Your task to perform on an android device: Open Chrome and go to the settings page Image 0: 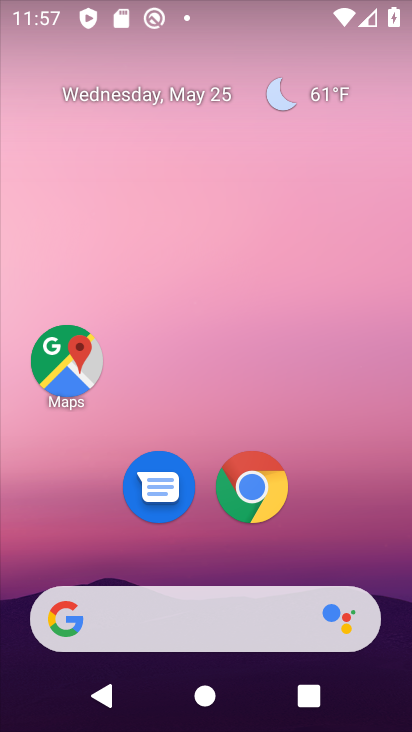
Step 0: click (144, 223)
Your task to perform on an android device: Open Chrome and go to the settings page Image 1: 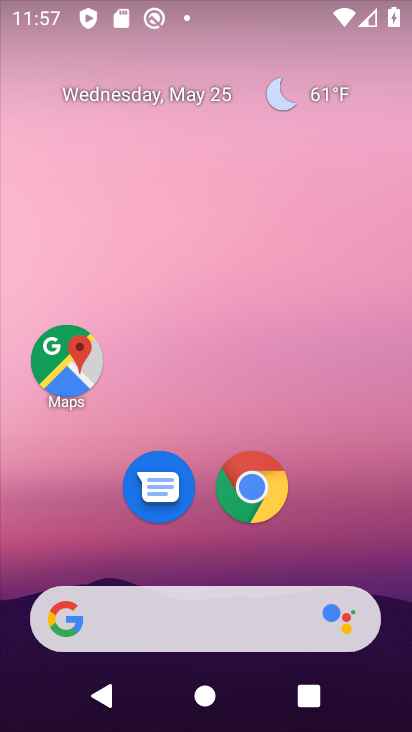
Step 1: drag from (255, 695) to (198, 300)
Your task to perform on an android device: Open Chrome and go to the settings page Image 2: 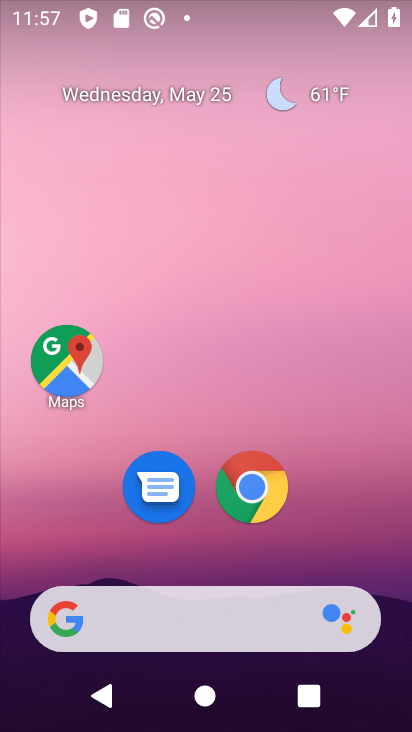
Step 2: drag from (249, 583) to (202, 204)
Your task to perform on an android device: Open Chrome and go to the settings page Image 3: 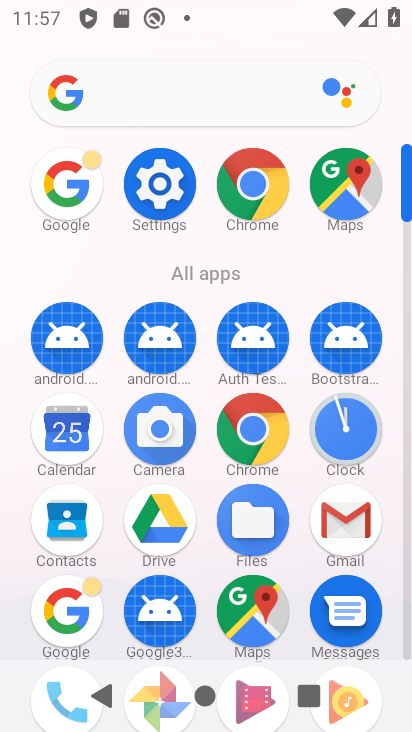
Step 3: click (241, 419)
Your task to perform on an android device: Open Chrome and go to the settings page Image 4: 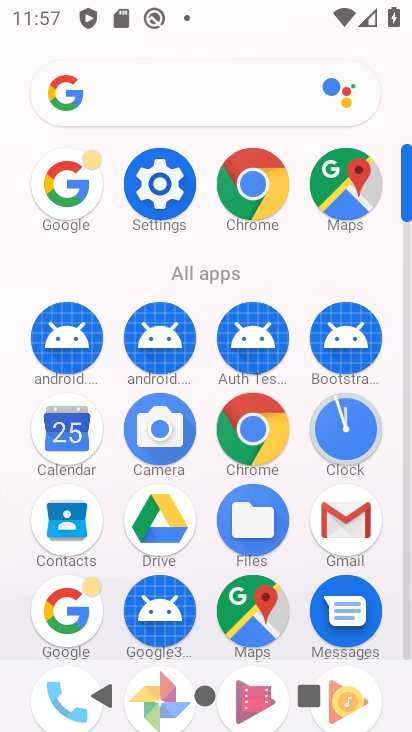
Step 4: click (243, 418)
Your task to perform on an android device: Open Chrome and go to the settings page Image 5: 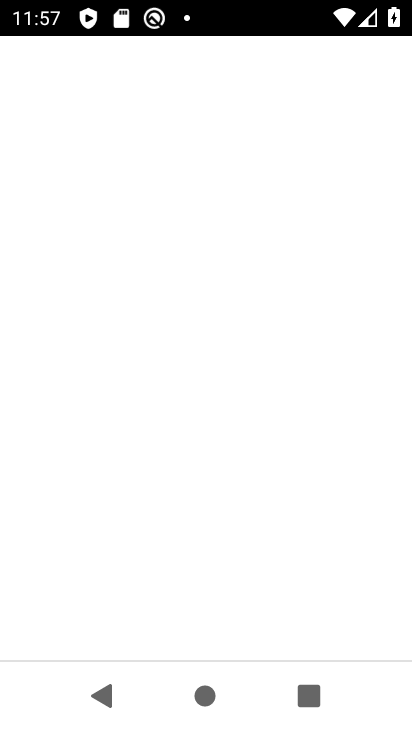
Step 5: click (242, 418)
Your task to perform on an android device: Open Chrome and go to the settings page Image 6: 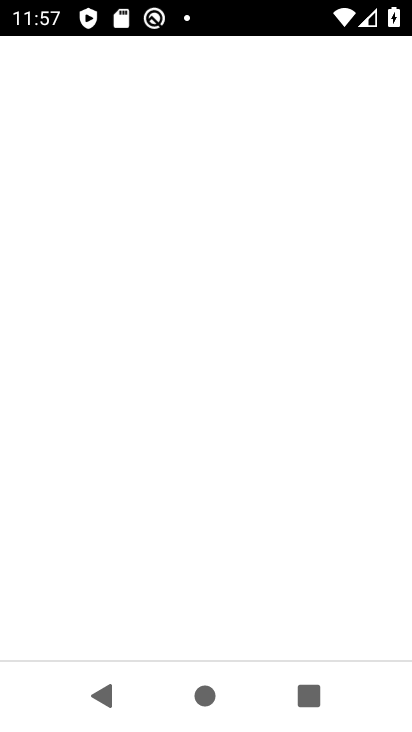
Step 6: click (242, 418)
Your task to perform on an android device: Open Chrome and go to the settings page Image 7: 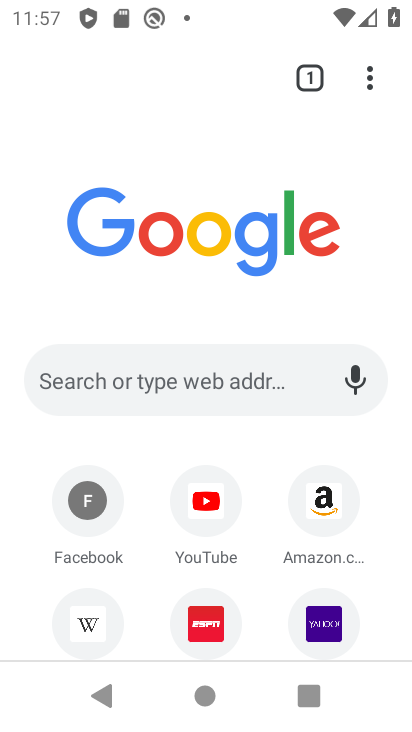
Step 7: drag from (368, 80) to (79, 538)
Your task to perform on an android device: Open Chrome and go to the settings page Image 8: 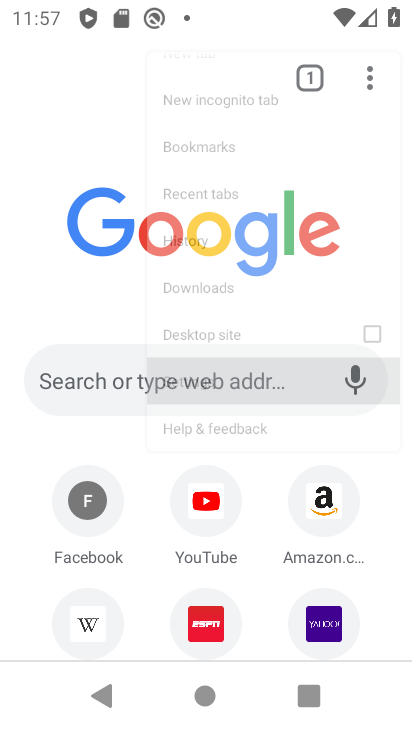
Step 8: click (79, 538)
Your task to perform on an android device: Open Chrome and go to the settings page Image 9: 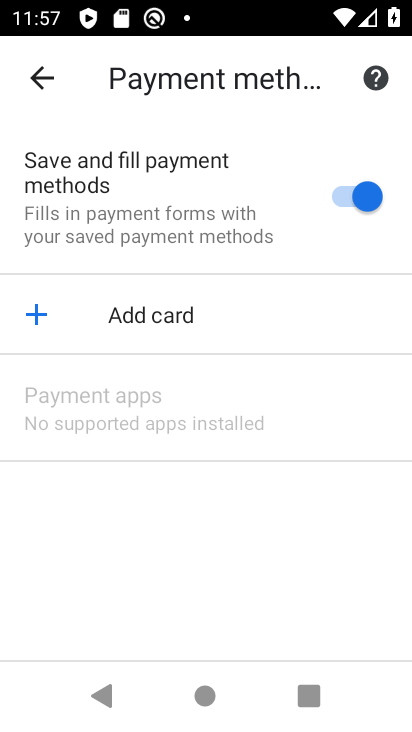
Step 9: click (55, 66)
Your task to perform on an android device: Open Chrome and go to the settings page Image 10: 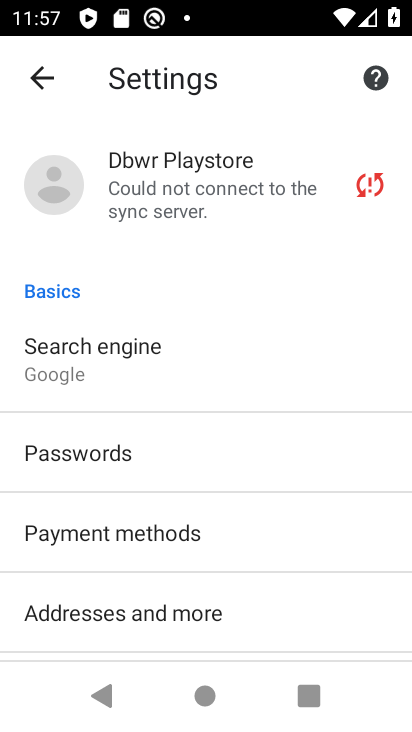
Step 10: task complete